Your task to perform on an android device: open a new tab in the chrome app Image 0: 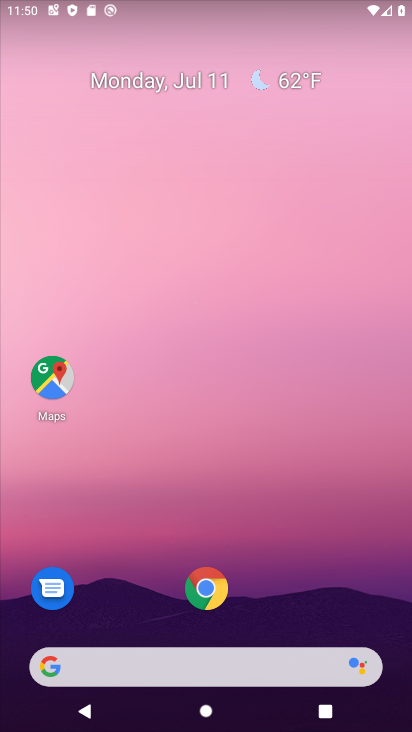
Step 0: click (190, 588)
Your task to perform on an android device: open a new tab in the chrome app Image 1: 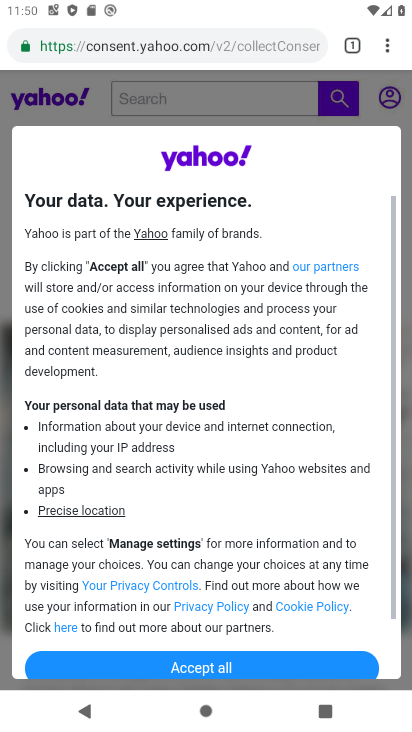
Step 1: click (352, 48)
Your task to perform on an android device: open a new tab in the chrome app Image 2: 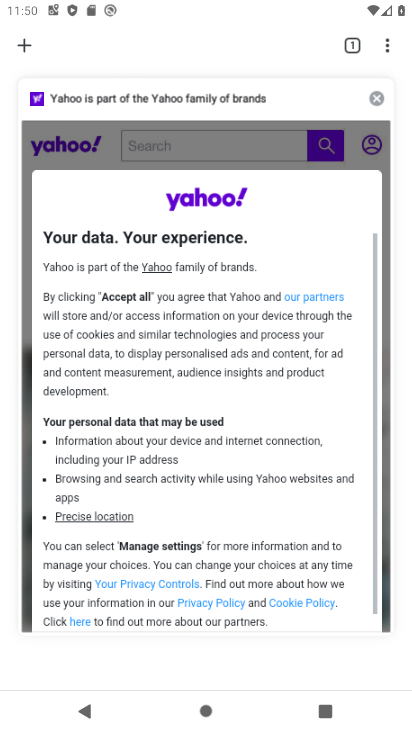
Step 2: click (22, 48)
Your task to perform on an android device: open a new tab in the chrome app Image 3: 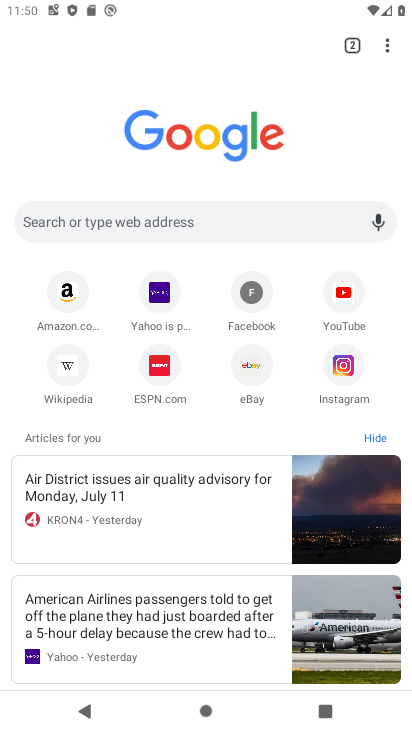
Step 3: task complete